Your task to perform on an android device: Open network settings Image 0: 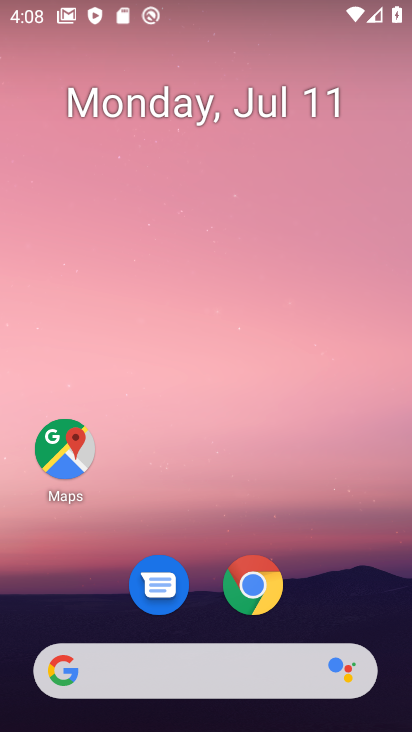
Step 0: drag from (320, 568) to (309, 80)
Your task to perform on an android device: Open network settings Image 1: 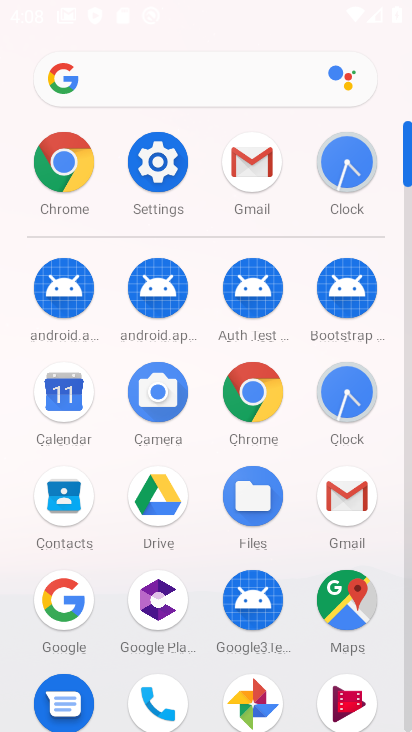
Step 1: click (160, 171)
Your task to perform on an android device: Open network settings Image 2: 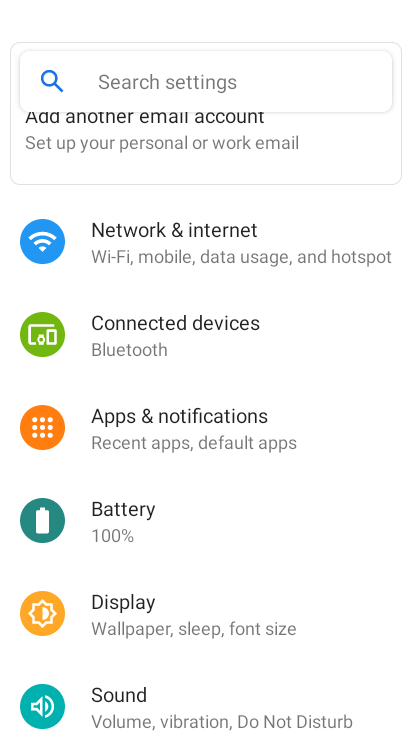
Step 2: click (189, 253)
Your task to perform on an android device: Open network settings Image 3: 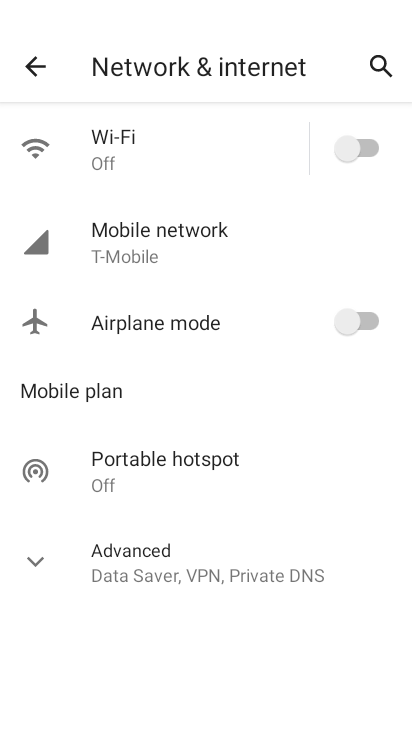
Step 3: task complete